Your task to perform on an android device: check storage Image 0: 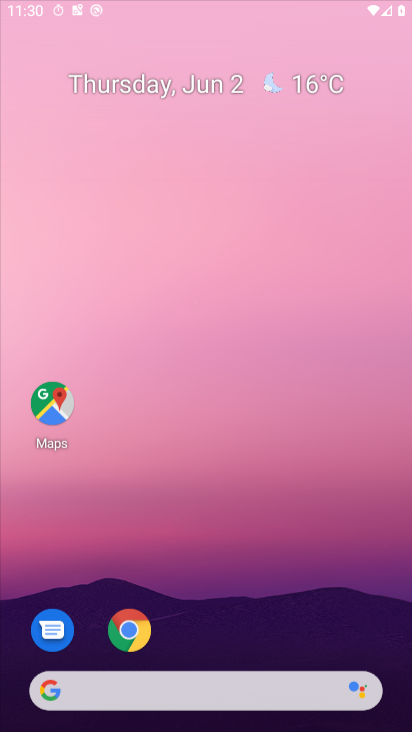
Step 0: click (131, 630)
Your task to perform on an android device: check storage Image 1: 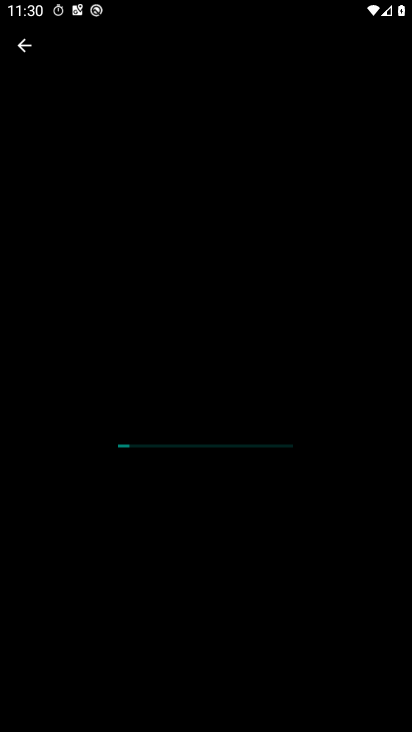
Step 1: press home button
Your task to perform on an android device: check storage Image 2: 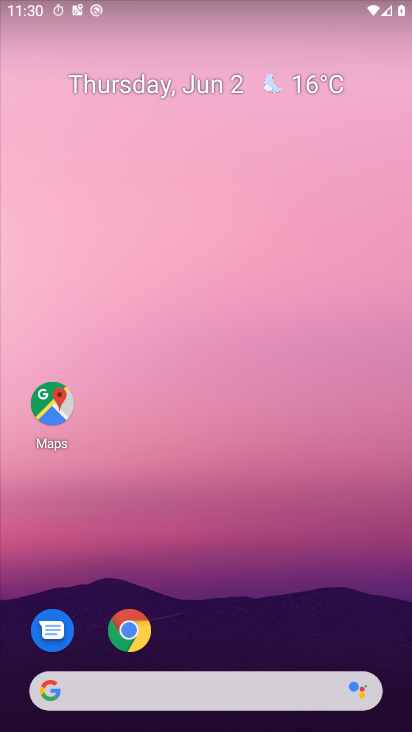
Step 2: drag from (236, 652) to (278, 390)
Your task to perform on an android device: check storage Image 3: 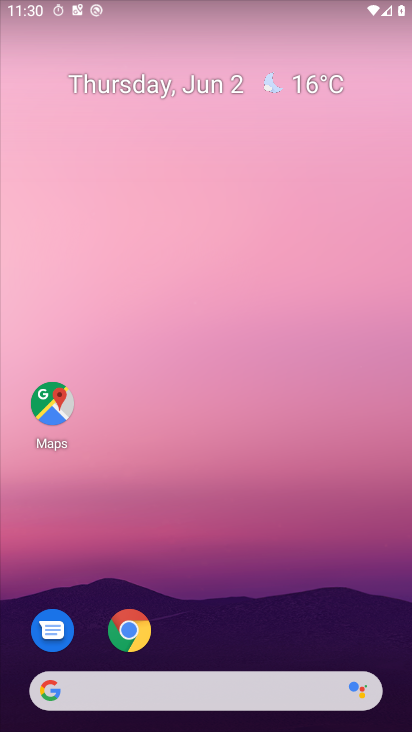
Step 3: drag from (220, 663) to (243, 224)
Your task to perform on an android device: check storage Image 4: 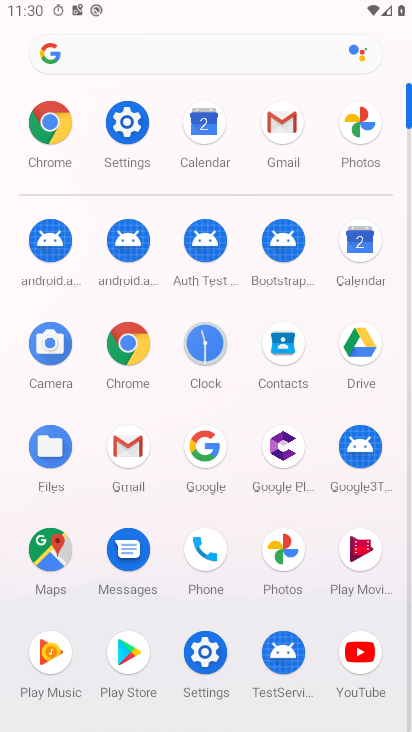
Step 4: click (131, 135)
Your task to perform on an android device: check storage Image 5: 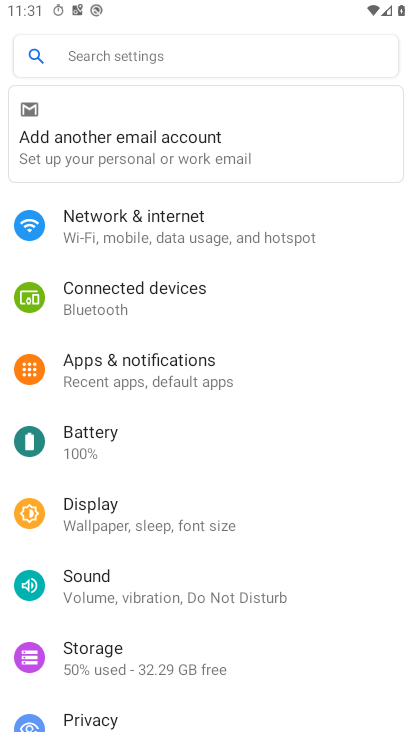
Step 5: drag from (182, 547) to (203, 426)
Your task to perform on an android device: check storage Image 6: 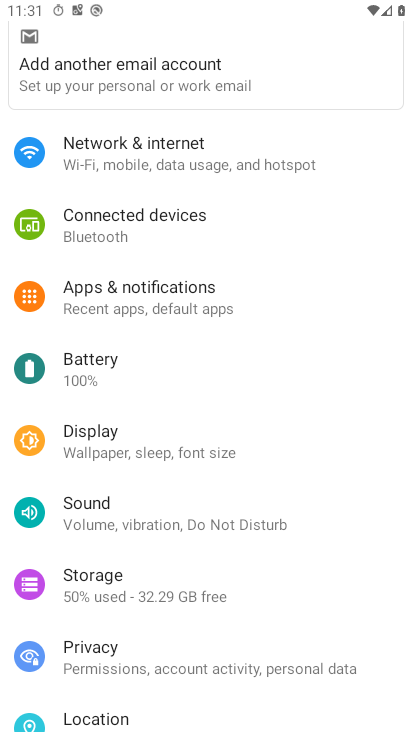
Step 6: click (138, 593)
Your task to perform on an android device: check storage Image 7: 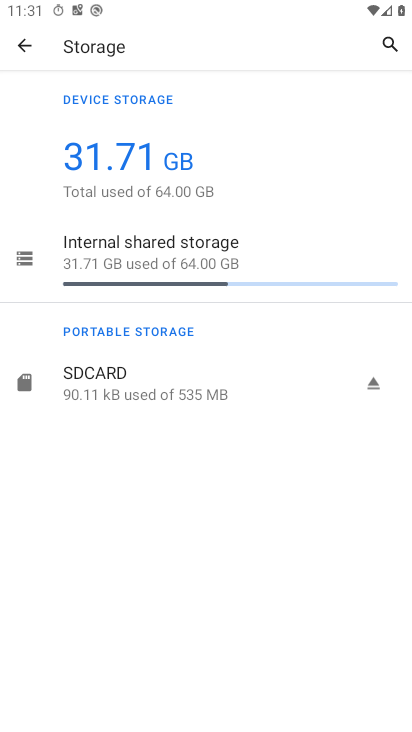
Step 7: click (171, 256)
Your task to perform on an android device: check storage Image 8: 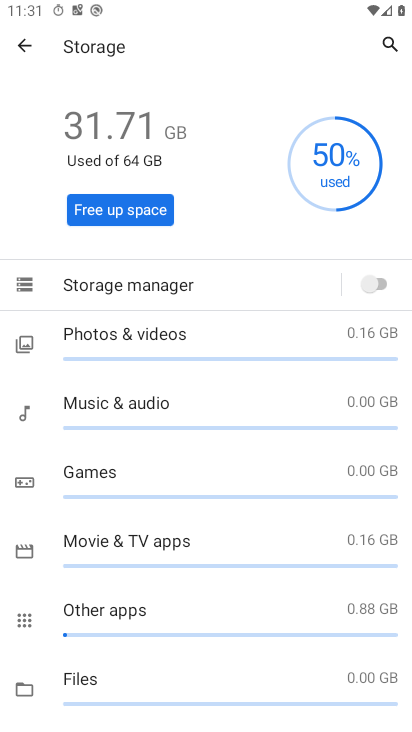
Step 8: task complete